Your task to perform on an android device: Open calendar and show me the third week of next month Image 0: 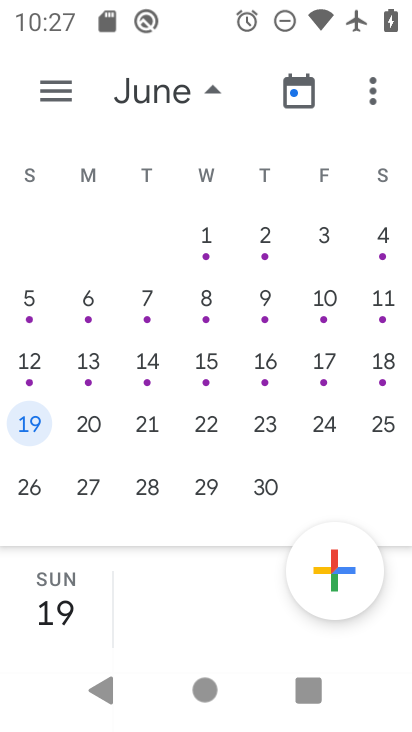
Step 0: press home button
Your task to perform on an android device: Open calendar and show me the third week of next month Image 1: 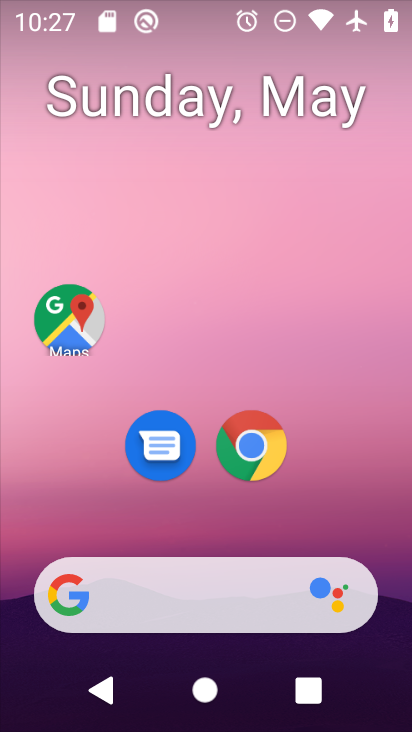
Step 1: drag from (165, 430) to (173, 190)
Your task to perform on an android device: Open calendar and show me the third week of next month Image 2: 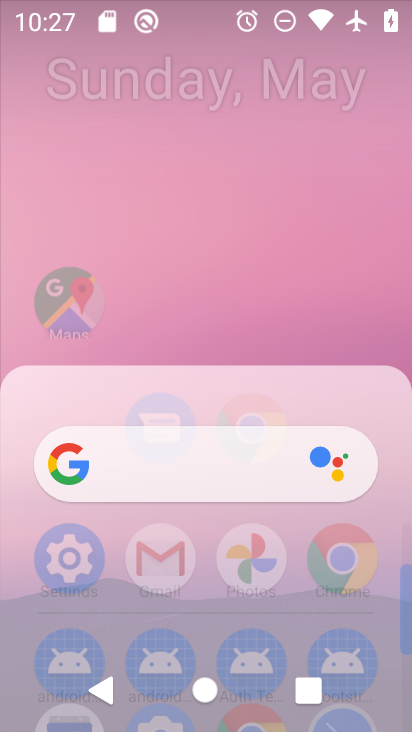
Step 2: click (186, 90)
Your task to perform on an android device: Open calendar and show me the third week of next month Image 3: 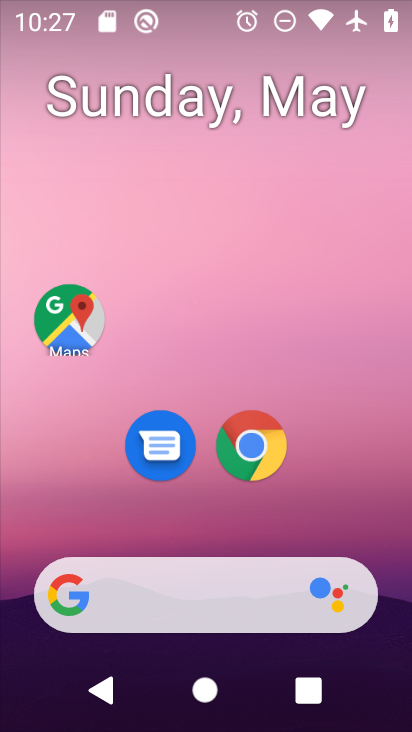
Step 3: drag from (160, 663) to (161, 19)
Your task to perform on an android device: Open calendar and show me the third week of next month Image 4: 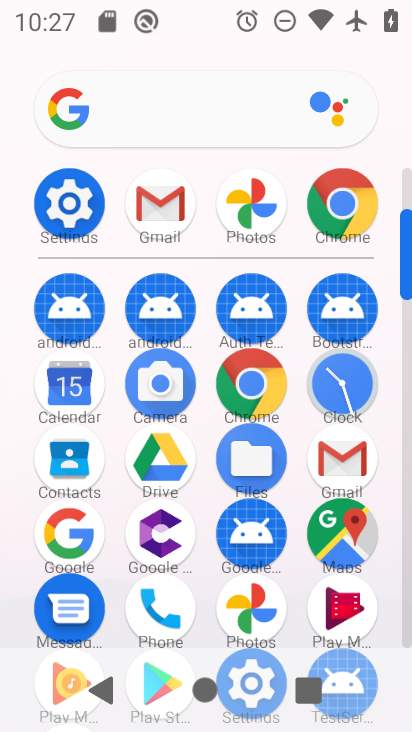
Step 4: click (75, 401)
Your task to perform on an android device: Open calendar and show me the third week of next month Image 5: 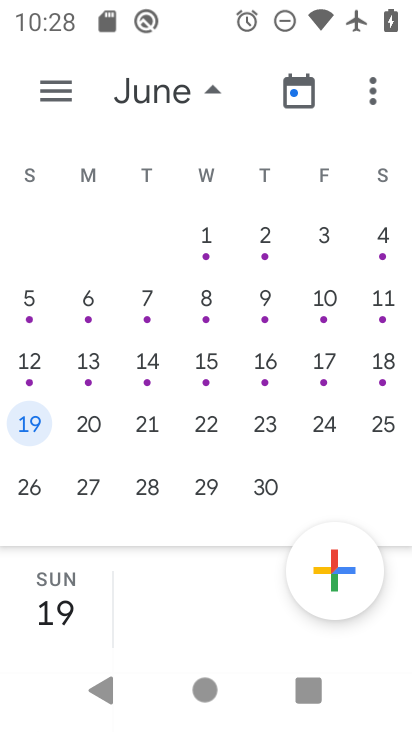
Step 5: task complete